Your task to perform on an android device: Go to Wikipedia Image 0: 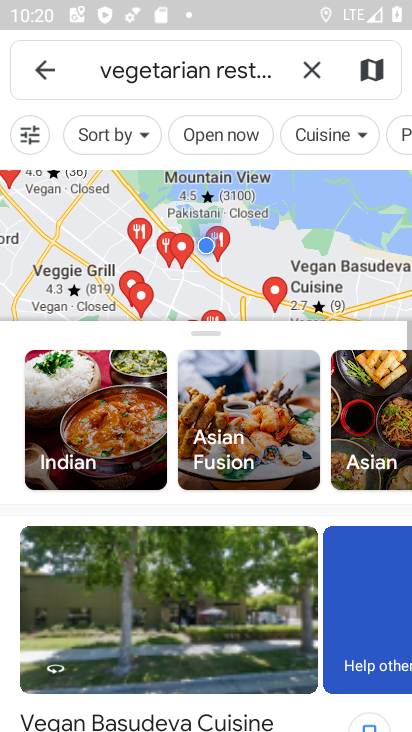
Step 0: press home button
Your task to perform on an android device: Go to Wikipedia Image 1: 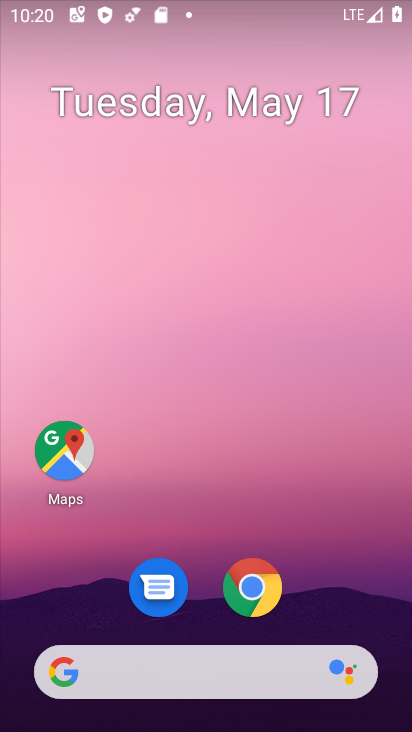
Step 1: drag from (379, 621) to (286, 29)
Your task to perform on an android device: Go to Wikipedia Image 2: 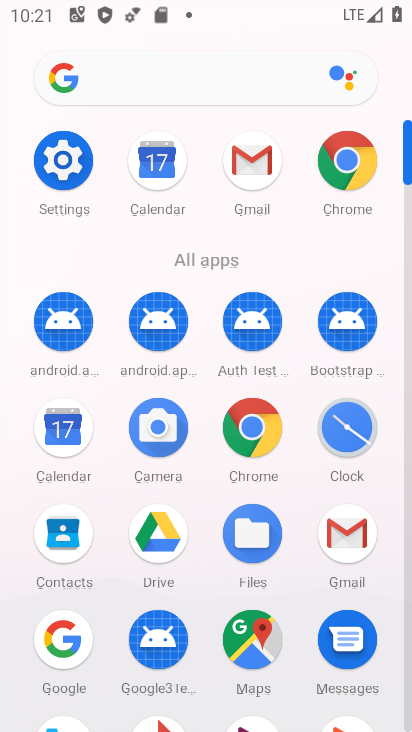
Step 2: click (238, 431)
Your task to perform on an android device: Go to Wikipedia Image 3: 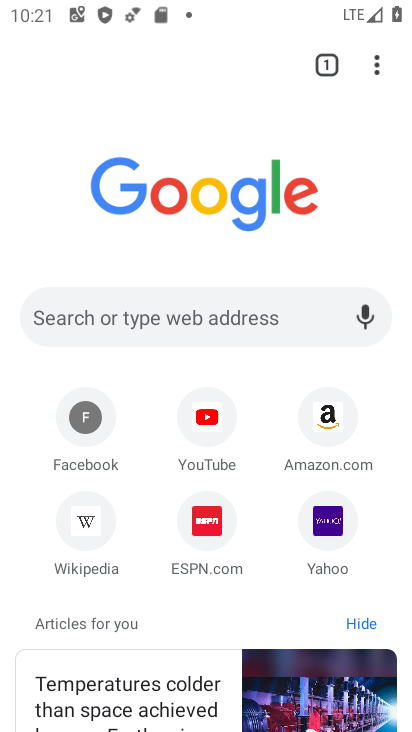
Step 3: click (76, 525)
Your task to perform on an android device: Go to Wikipedia Image 4: 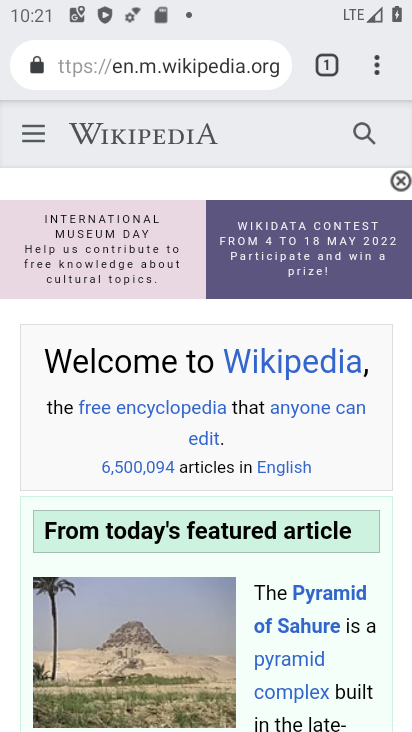
Step 4: task complete